Your task to perform on an android device: Go to Yahoo.com Image 0: 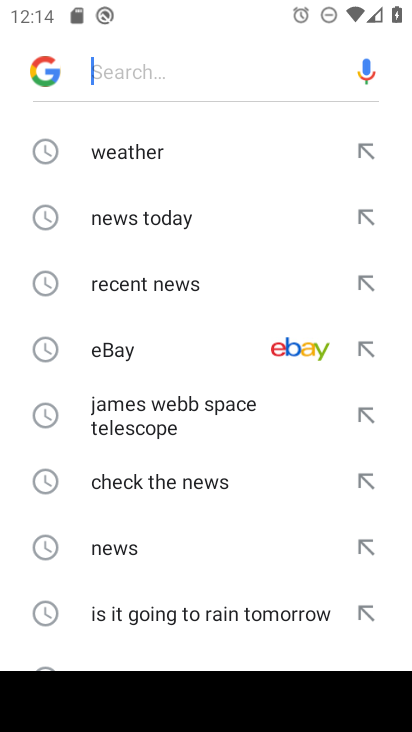
Step 0: type "yahoo.com"
Your task to perform on an android device: Go to Yahoo.com Image 1: 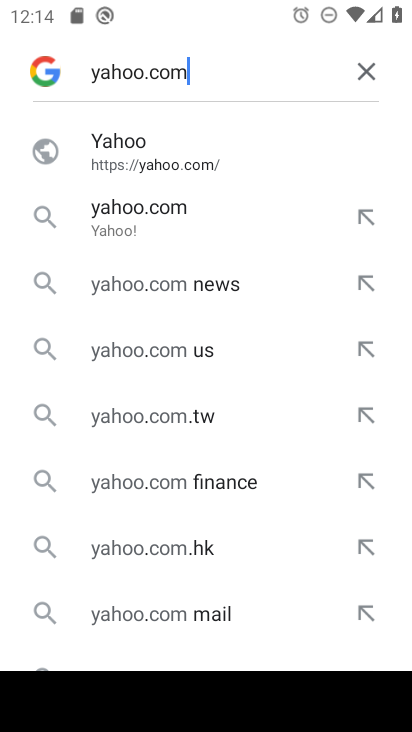
Step 1: click (119, 151)
Your task to perform on an android device: Go to Yahoo.com Image 2: 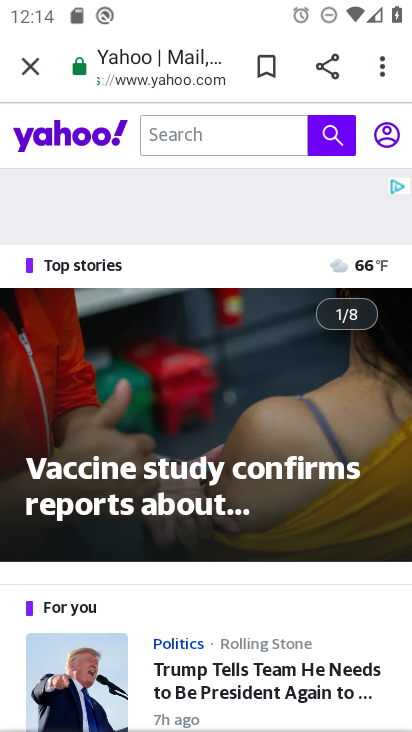
Step 2: task complete